Your task to perform on an android device: turn off improve location accuracy Image 0: 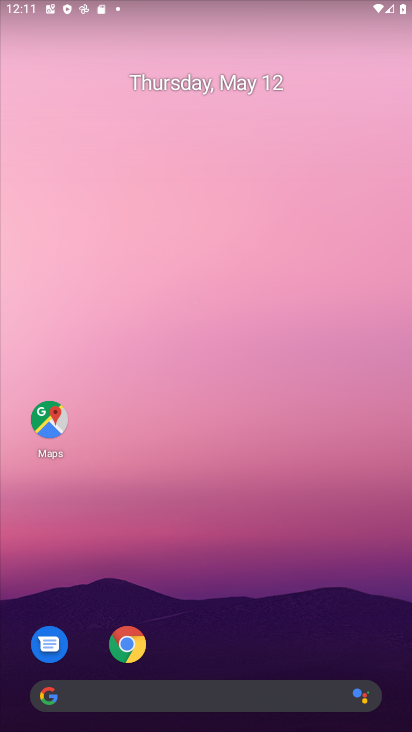
Step 0: drag from (297, 645) to (314, 272)
Your task to perform on an android device: turn off improve location accuracy Image 1: 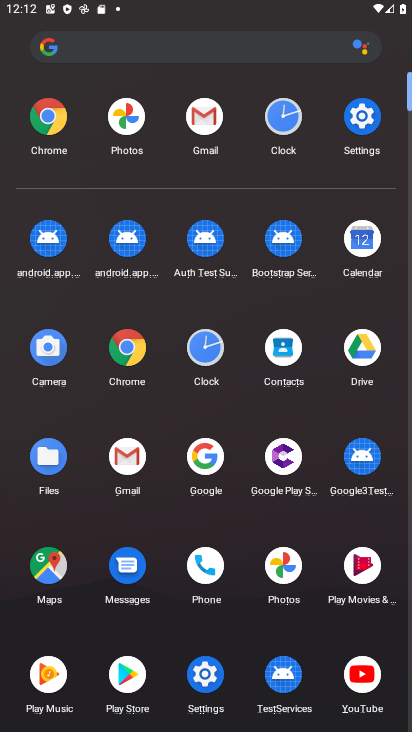
Step 1: click (216, 688)
Your task to perform on an android device: turn off improve location accuracy Image 2: 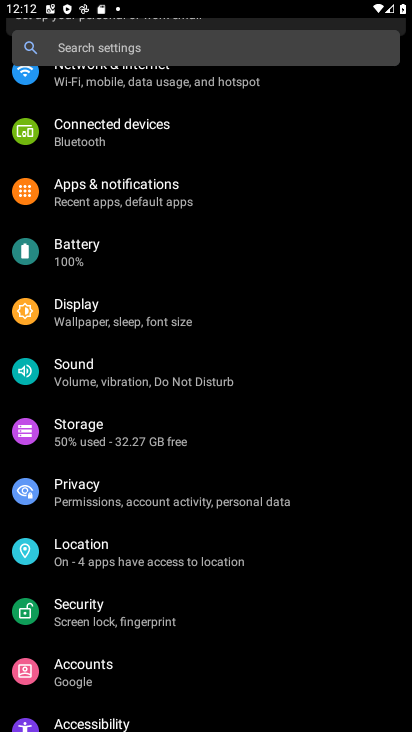
Step 2: click (169, 546)
Your task to perform on an android device: turn off improve location accuracy Image 3: 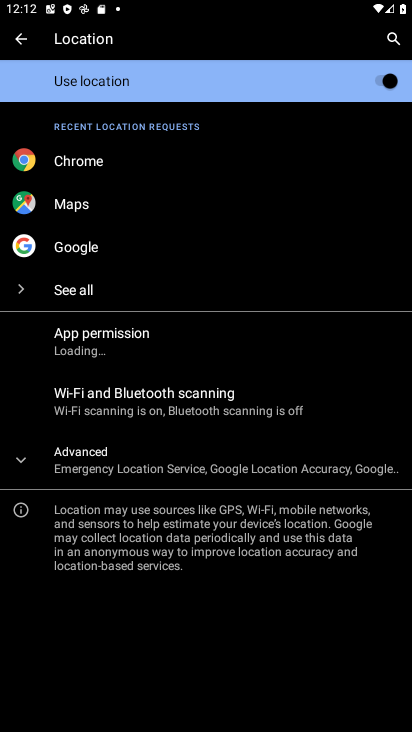
Step 3: click (228, 469)
Your task to perform on an android device: turn off improve location accuracy Image 4: 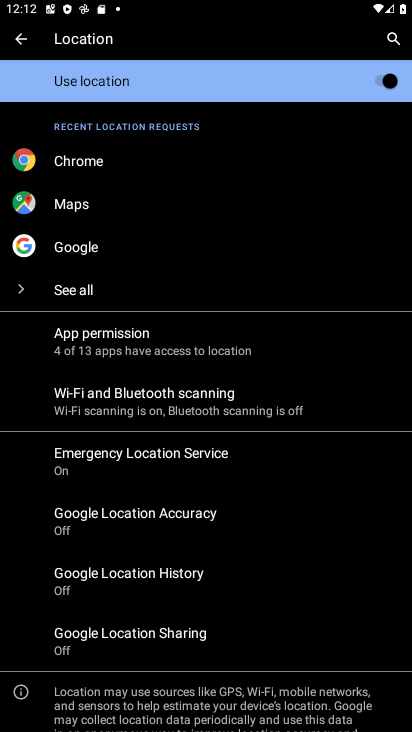
Step 4: click (255, 521)
Your task to perform on an android device: turn off improve location accuracy Image 5: 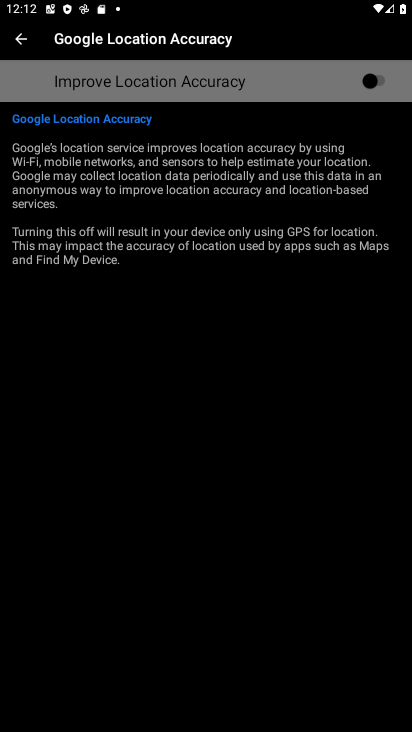
Step 5: task complete